Your task to perform on an android device: read, delete, or share a saved page in the chrome app Image 0: 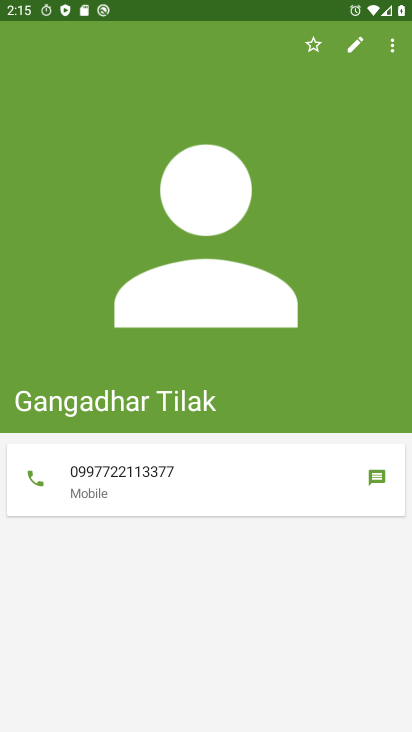
Step 0: press home button
Your task to perform on an android device: read, delete, or share a saved page in the chrome app Image 1: 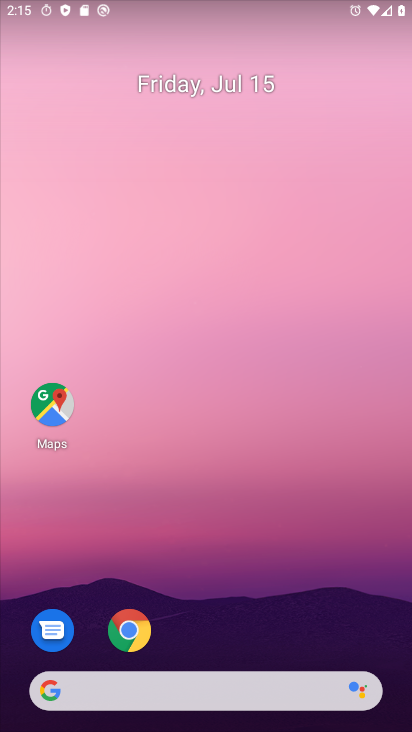
Step 1: click (140, 628)
Your task to perform on an android device: read, delete, or share a saved page in the chrome app Image 2: 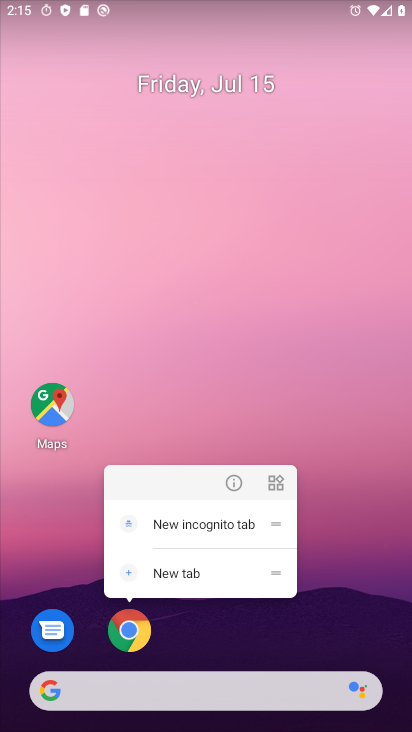
Step 2: click (123, 639)
Your task to perform on an android device: read, delete, or share a saved page in the chrome app Image 3: 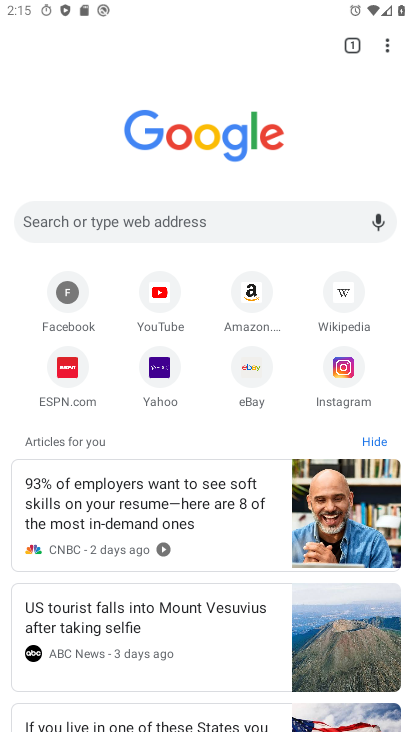
Step 3: click (391, 38)
Your task to perform on an android device: read, delete, or share a saved page in the chrome app Image 4: 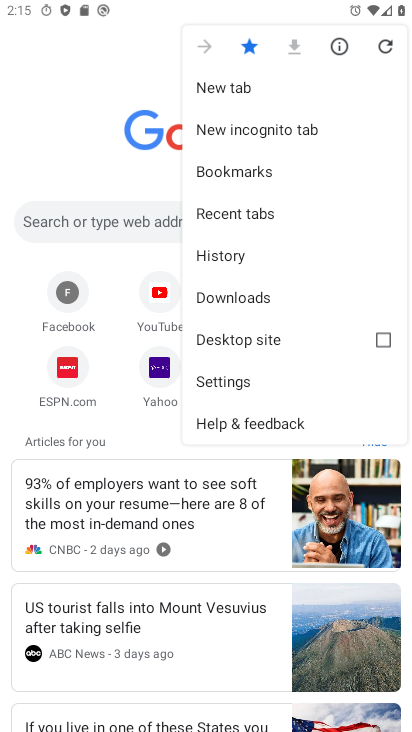
Step 4: click (251, 297)
Your task to perform on an android device: read, delete, or share a saved page in the chrome app Image 5: 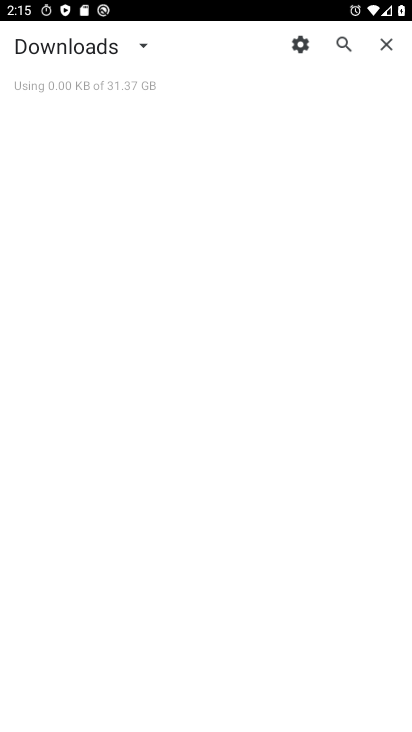
Step 5: click (133, 40)
Your task to perform on an android device: read, delete, or share a saved page in the chrome app Image 6: 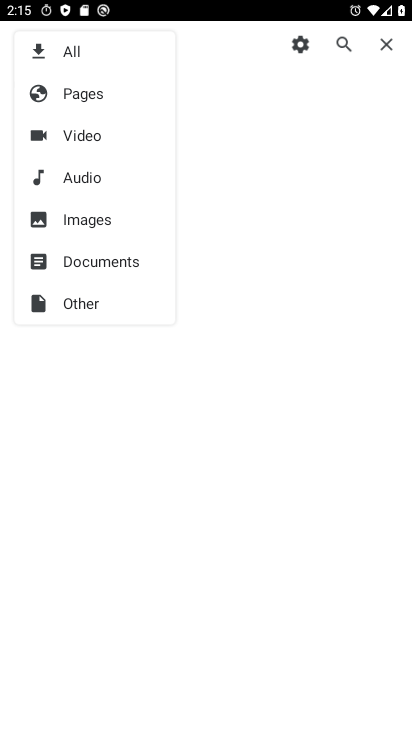
Step 6: click (100, 98)
Your task to perform on an android device: read, delete, or share a saved page in the chrome app Image 7: 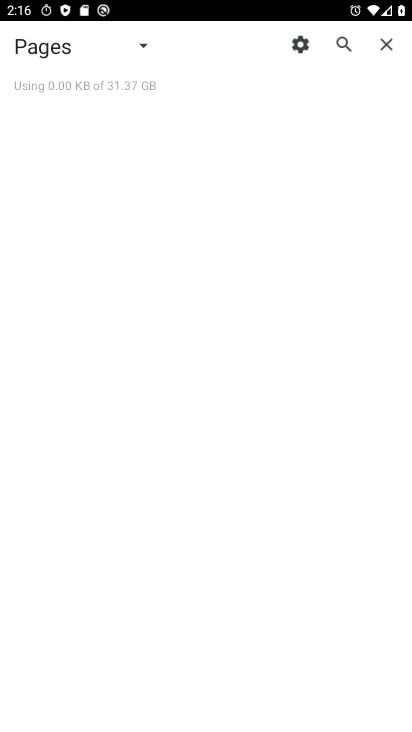
Step 7: task complete